Your task to perform on an android device: Go to ESPN.com Image 0: 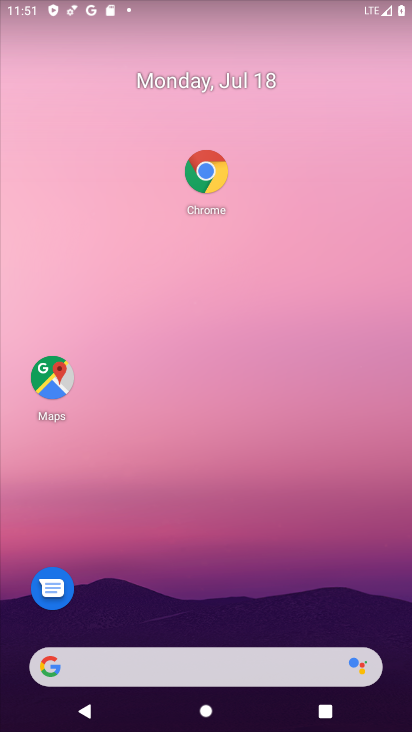
Step 0: click (202, 180)
Your task to perform on an android device: Go to ESPN.com Image 1: 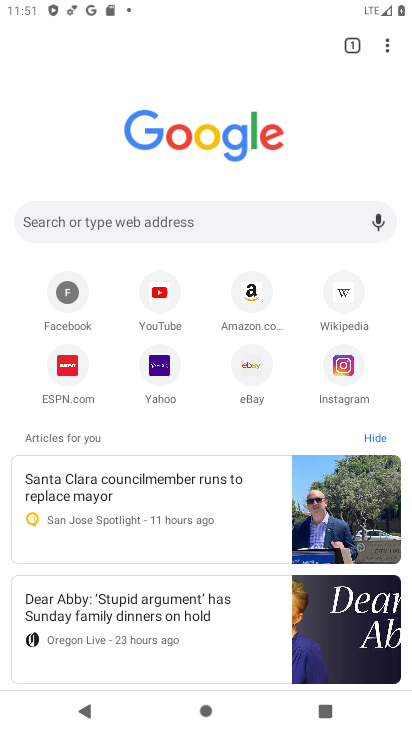
Step 1: click (81, 372)
Your task to perform on an android device: Go to ESPN.com Image 2: 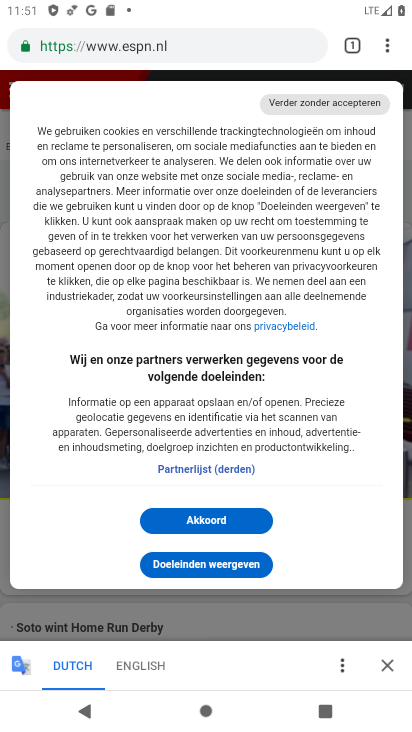
Step 2: task complete